Your task to perform on an android device: Open privacy settings Image 0: 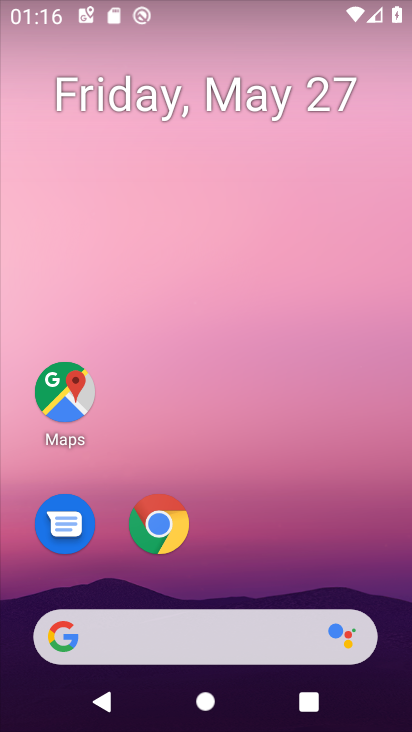
Step 0: drag from (256, 548) to (269, 13)
Your task to perform on an android device: Open privacy settings Image 1: 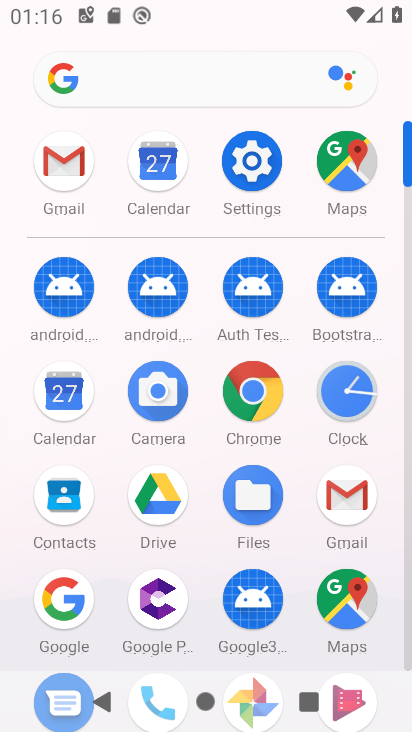
Step 1: click (259, 152)
Your task to perform on an android device: Open privacy settings Image 2: 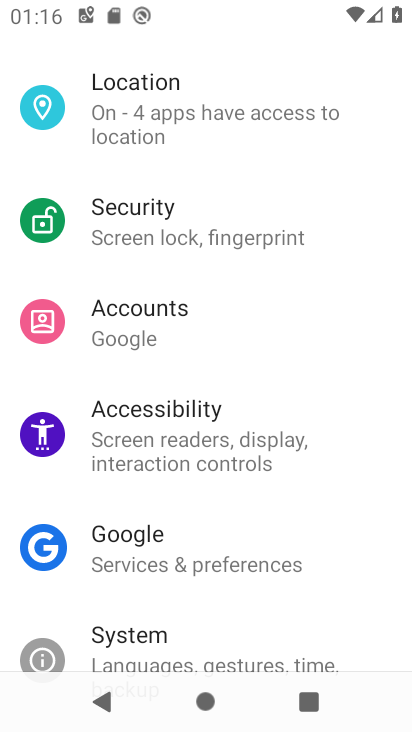
Step 2: drag from (250, 581) to (234, 440)
Your task to perform on an android device: Open privacy settings Image 3: 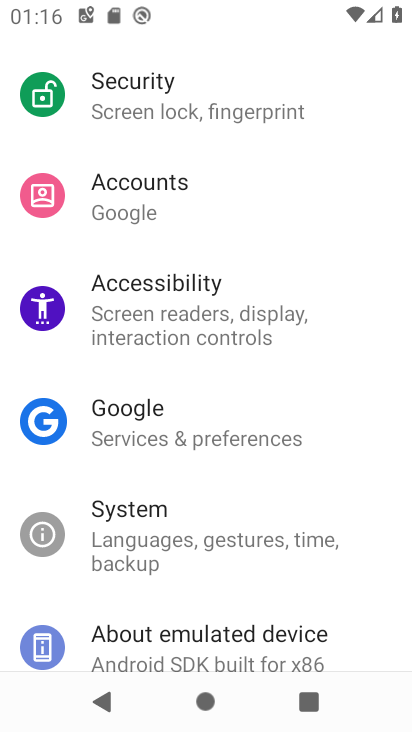
Step 3: drag from (235, 183) to (229, 667)
Your task to perform on an android device: Open privacy settings Image 4: 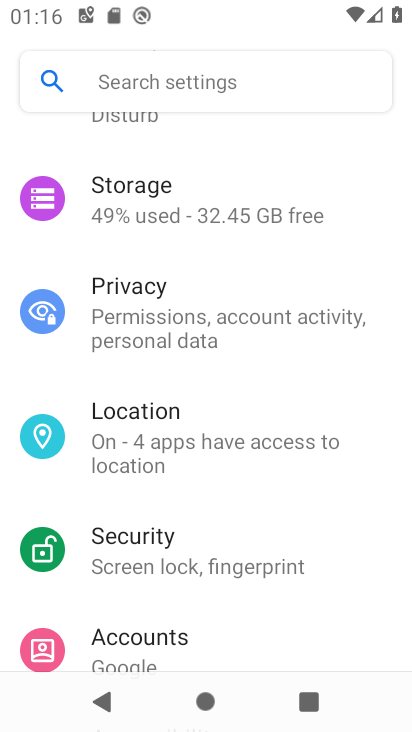
Step 4: click (177, 320)
Your task to perform on an android device: Open privacy settings Image 5: 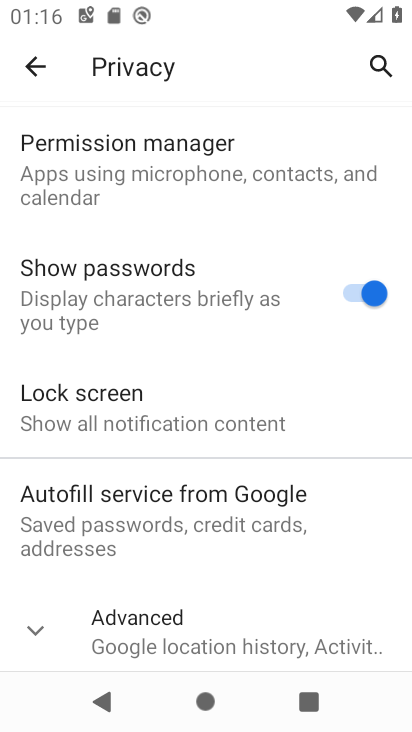
Step 5: task complete